Your task to perform on an android device: toggle improve location accuracy Image 0: 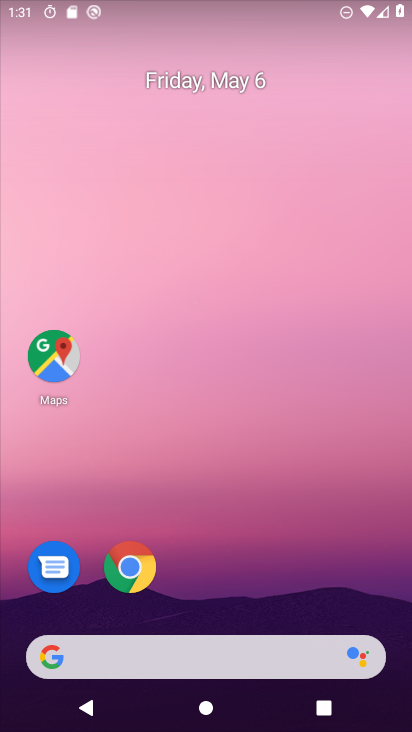
Step 0: drag from (270, 681) to (235, 117)
Your task to perform on an android device: toggle improve location accuracy Image 1: 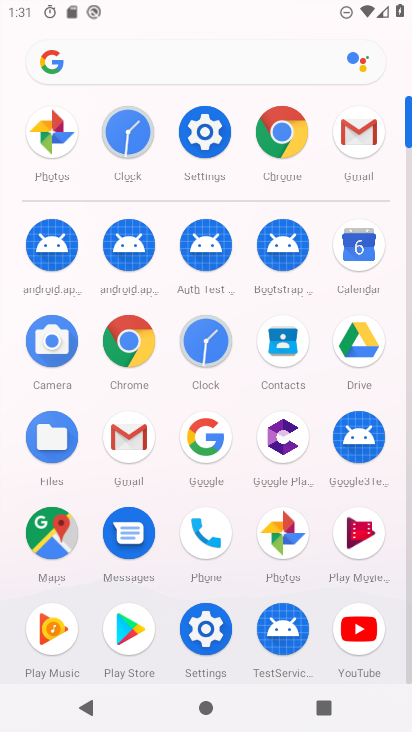
Step 1: click (200, 148)
Your task to perform on an android device: toggle improve location accuracy Image 2: 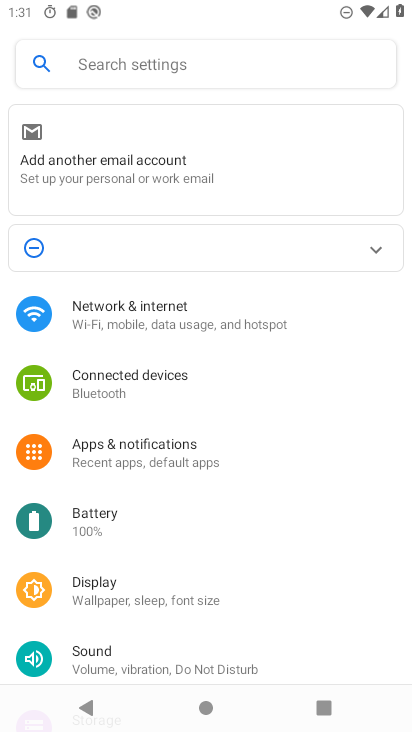
Step 2: click (160, 56)
Your task to perform on an android device: toggle improve location accuracy Image 3: 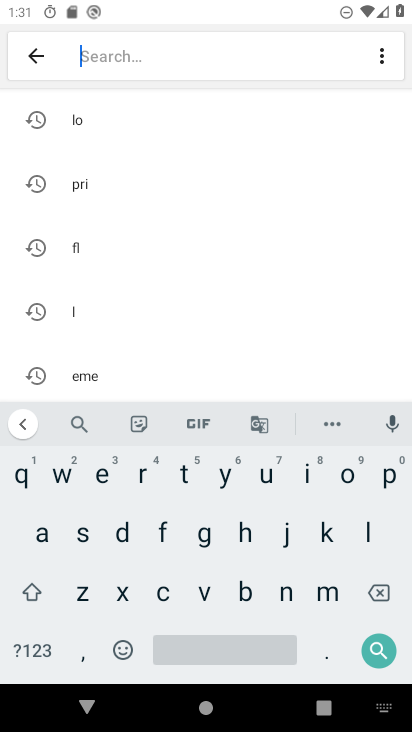
Step 3: click (113, 117)
Your task to perform on an android device: toggle improve location accuracy Image 4: 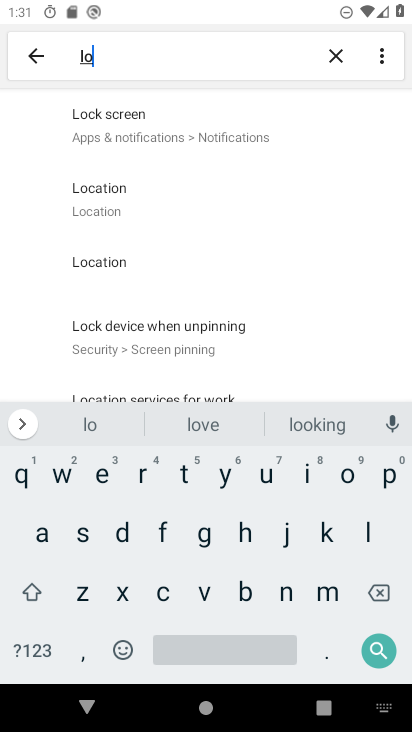
Step 4: click (139, 205)
Your task to perform on an android device: toggle improve location accuracy Image 5: 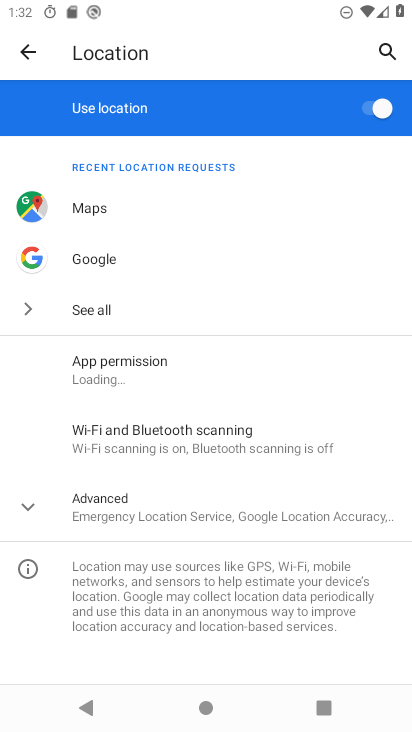
Step 5: click (73, 516)
Your task to perform on an android device: toggle improve location accuracy Image 6: 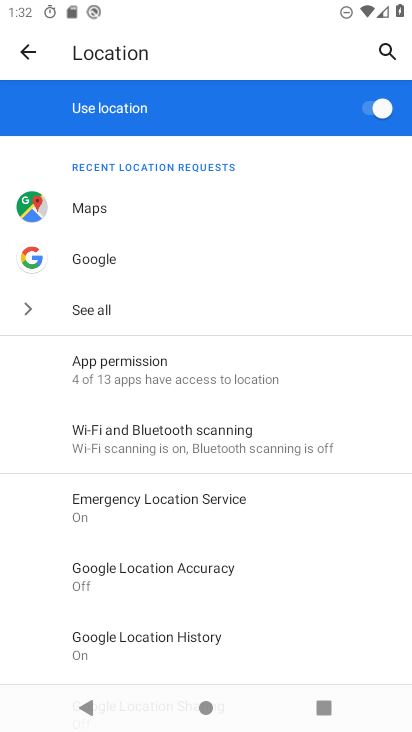
Step 6: drag from (191, 609) to (192, 541)
Your task to perform on an android device: toggle improve location accuracy Image 7: 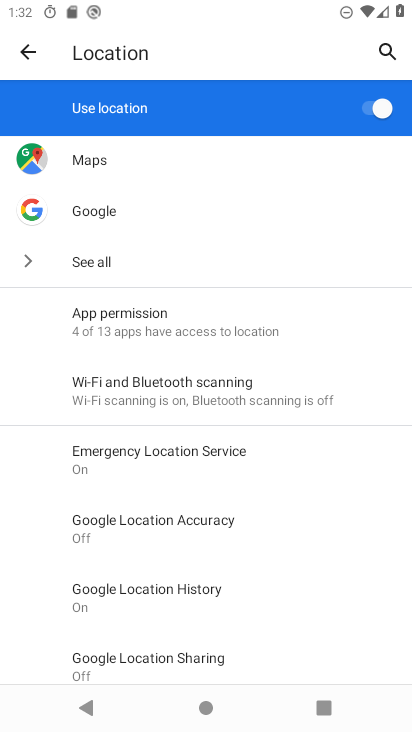
Step 7: click (219, 523)
Your task to perform on an android device: toggle improve location accuracy Image 8: 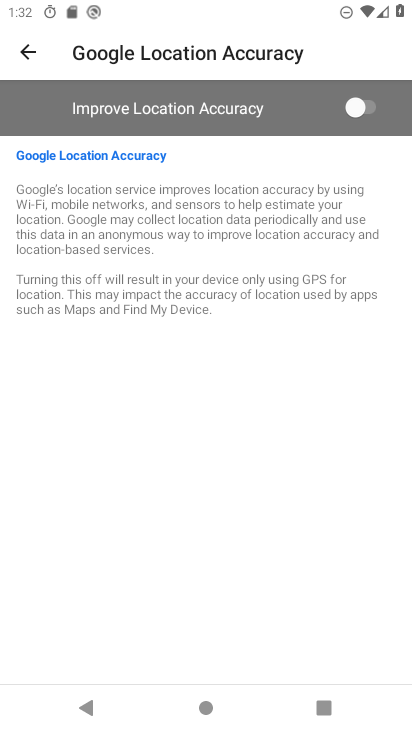
Step 8: task complete